Your task to perform on an android device: Go to calendar. Show me events next week Image 0: 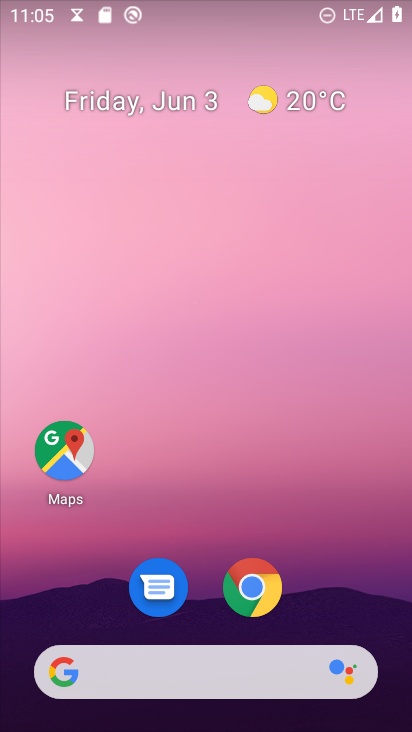
Step 0: drag from (349, 536) to (217, 61)
Your task to perform on an android device: Go to calendar. Show me events next week Image 1: 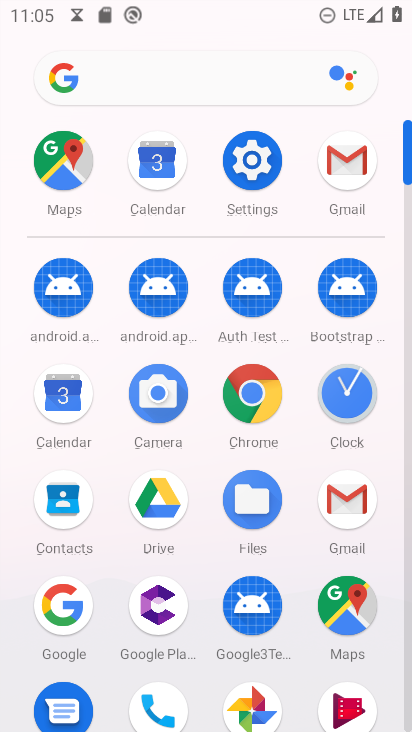
Step 1: click (139, 150)
Your task to perform on an android device: Go to calendar. Show me events next week Image 2: 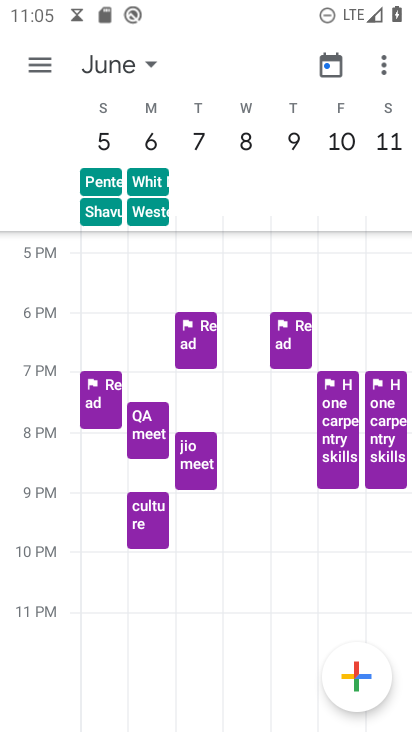
Step 2: task complete